Your task to perform on an android device: Open sound settings Image 0: 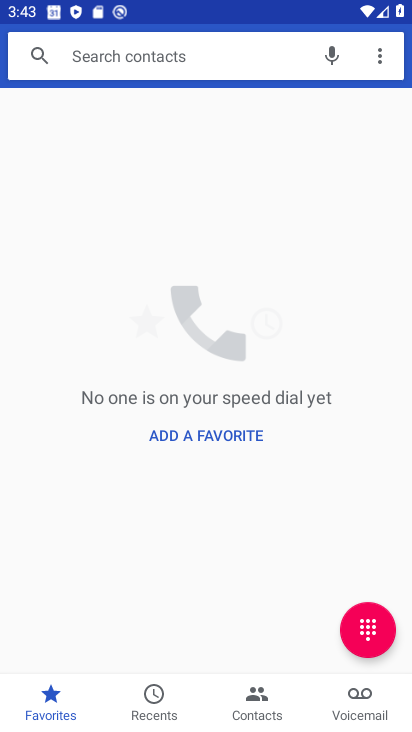
Step 0: press home button
Your task to perform on an android device: Open sound settings Image 1: 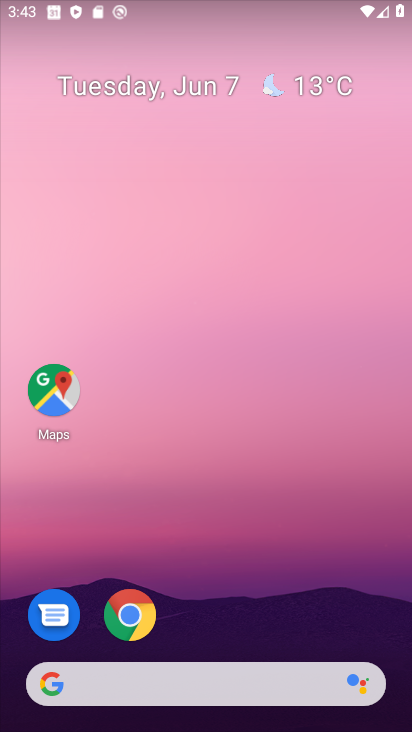
Step 1: drag from (224, 628) to (264, 13)
Your task to perform on an android device: Open sound settings Image 2: 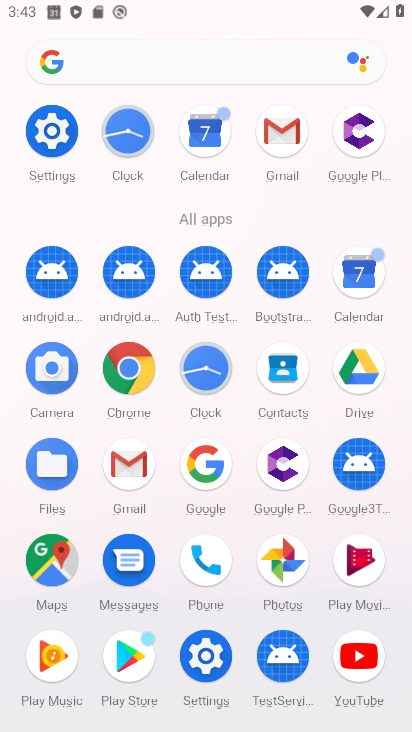
Step 2: click (41, 133)
Your task to perform on an android device: Open sound settings Image 3: 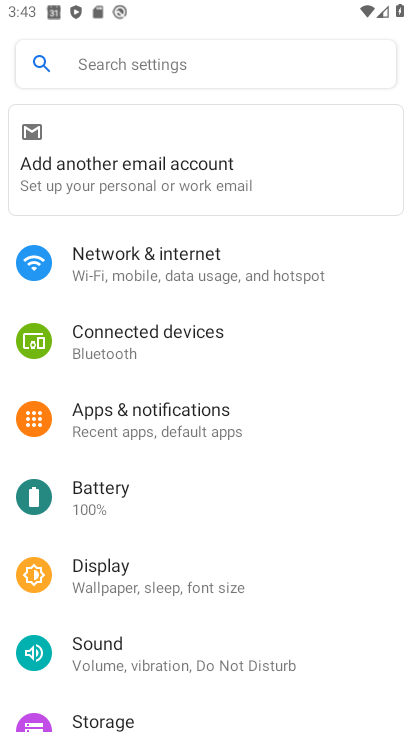
Step 3: click (118, 653)
Your task to perform on an android device: Open sound settings Image 4: 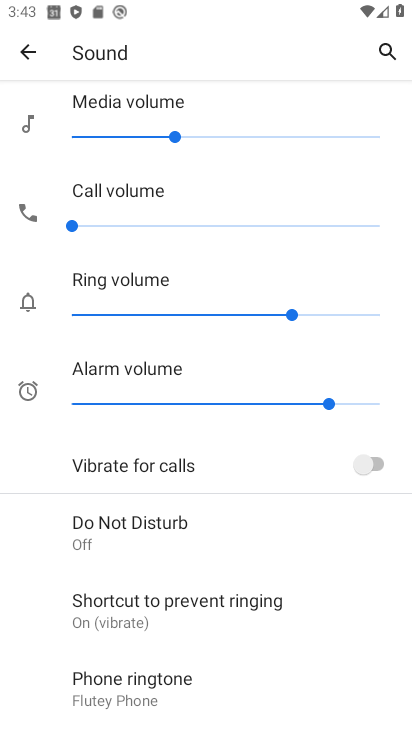
Step 4: task complete